Your task to perform on an android device: turn on priority inbox in the gmail app Image 0: 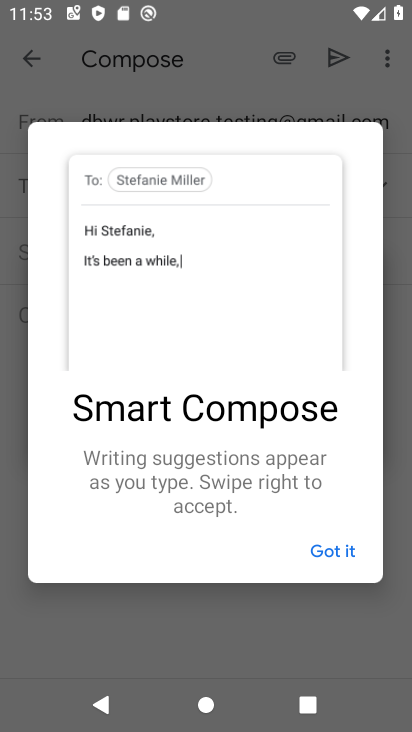
Step 0: press home button
Your task to perform on an android device: turn on priority inbox in the gmail app Image 1: 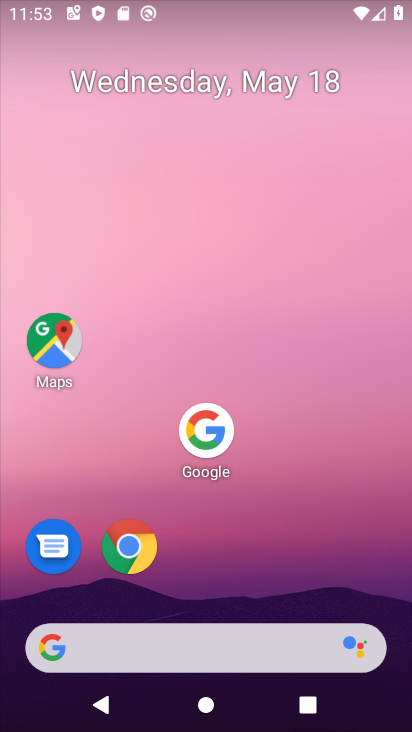
Step 1: drag from (243, 549) to (229, 53)
Your task to perform on an android device: turn on priority inbox in the gmail app Image 2: 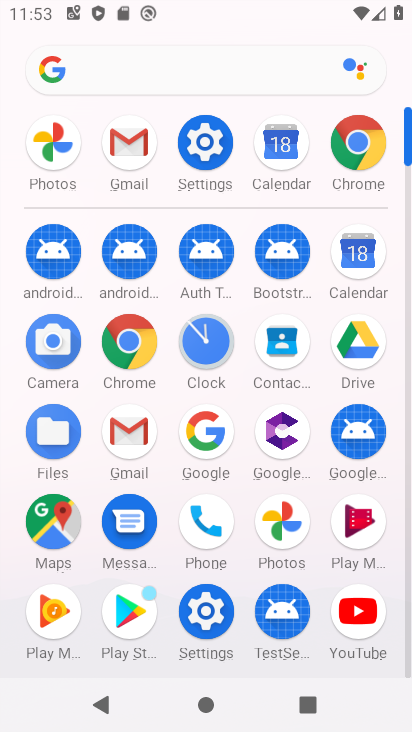
Step 2: click (119, 146)
Your task to perform on an android device: turn on priority inbox in the gmail app Image 3: 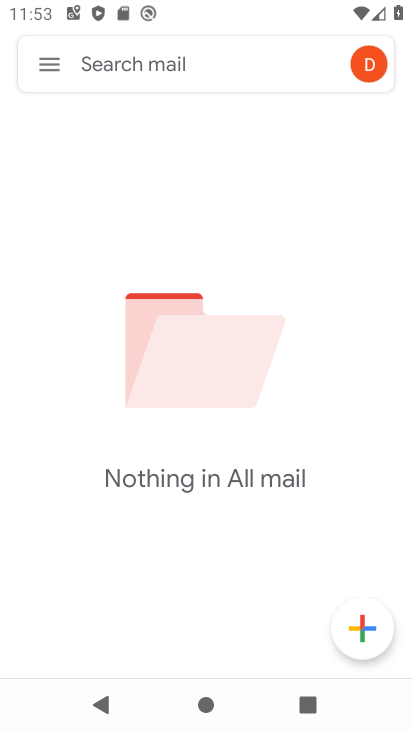
Step 3: click (52, 59)
Your task to perform on an android device: turn on priority inbox in the gmail app Image 4: 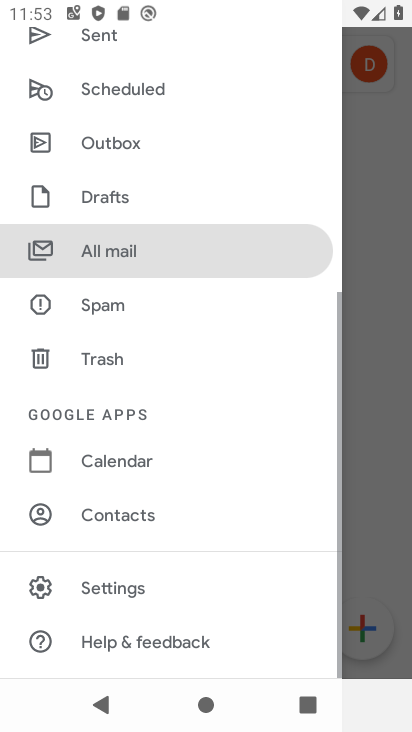
Step 4: click (132, 580)
Your task to perform on an android device: turn on priority inbox in the gmail app Image 5: 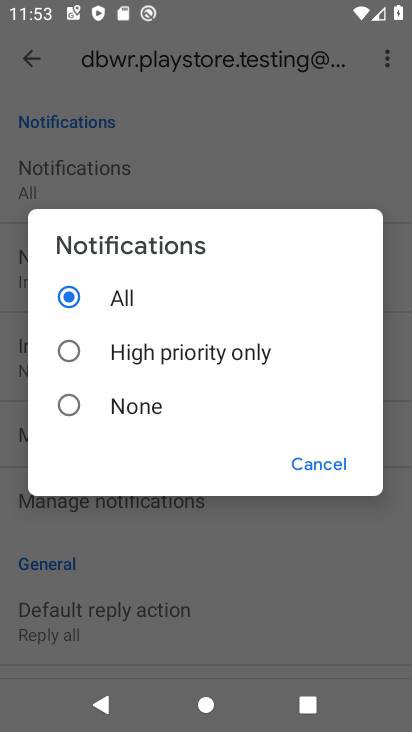
Step 5: click (325, 463)
Your task to perform on an android device: turn on priority inbox in the gmail app Image 6: 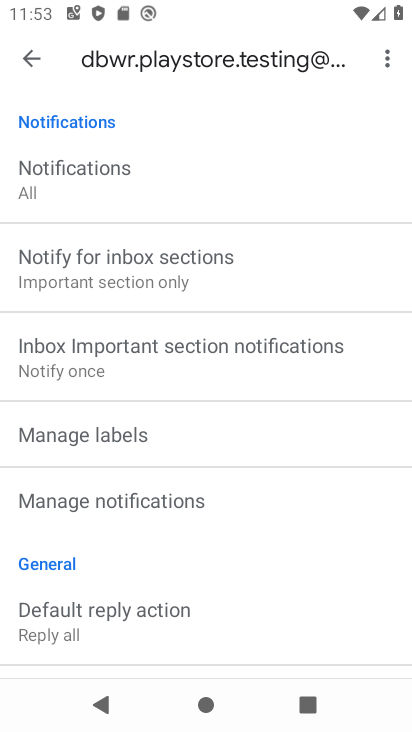
Step 6: click (101, 179)
Your task to perform on an android device: turn on priority inbox in the gmail app Image 7: 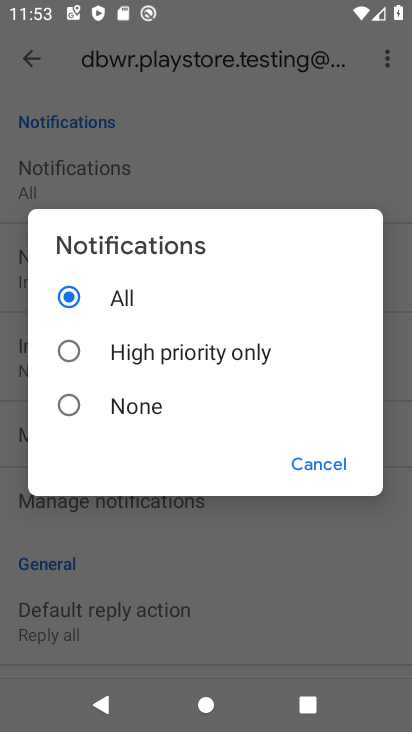
Step 7: press back button
Your task to perform on an android device: turn on priority inbox in the gmail app Image 8: 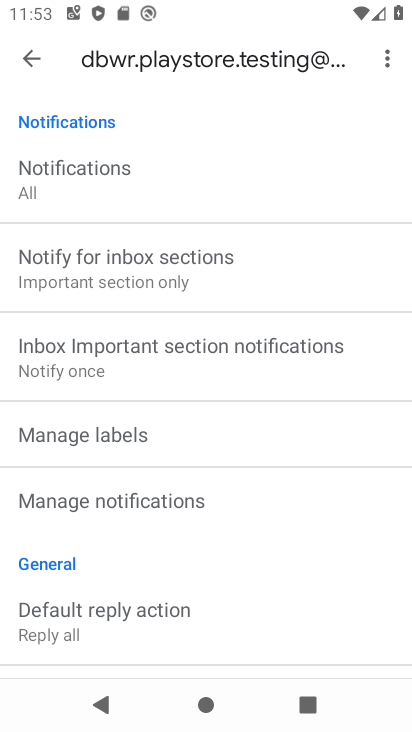
Step 8: drag from (195, 151) to (282, 548)
Your task to perform on an android device: turn on priority inbox in the gmail app Image 9: 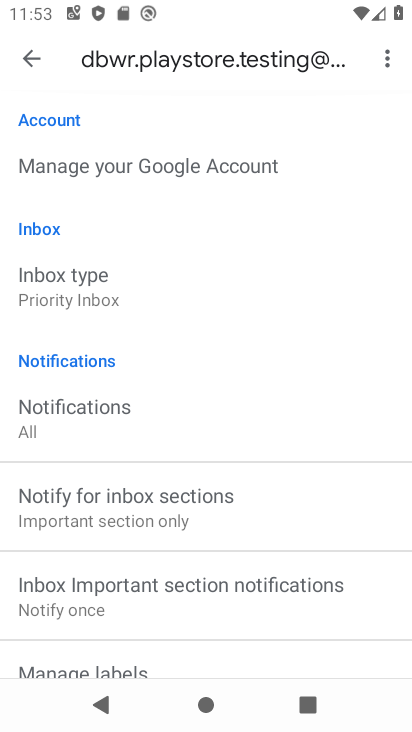
Step 9: click (114, 289)
Your task to perform on an android device: turn on priority inbox in the gmail app Image 10: 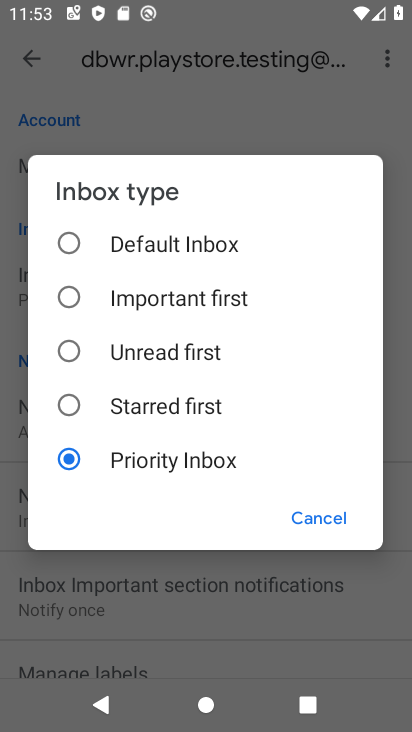
Step 10: task complete